Your task to perform on an android device: Search for flights from Helsinki to Tokyo Image 0: 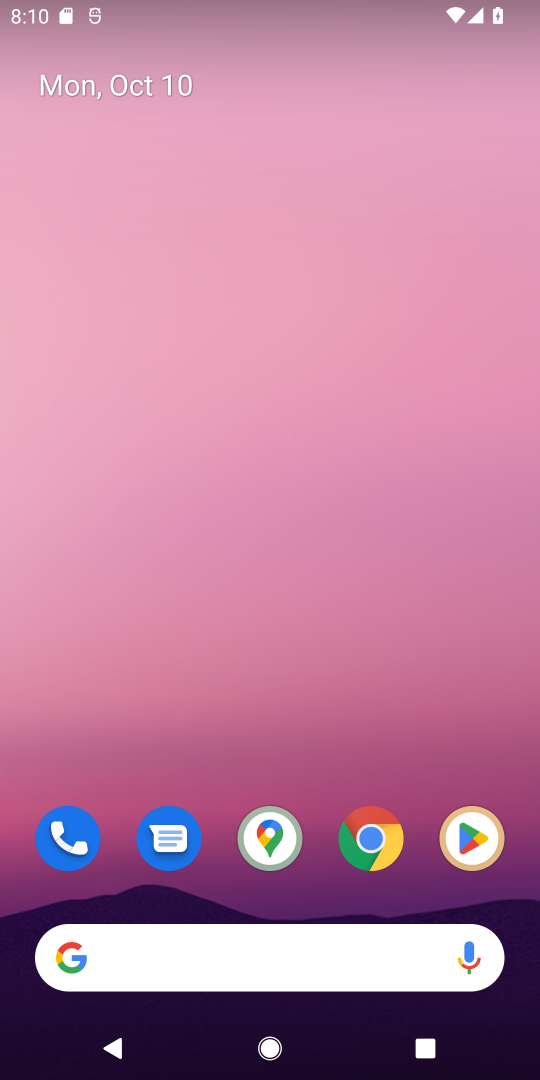
Step 0: click (375, 835)
Your task to perform on an android device: Search for flights from Helsinki to Tokyo Image 1: 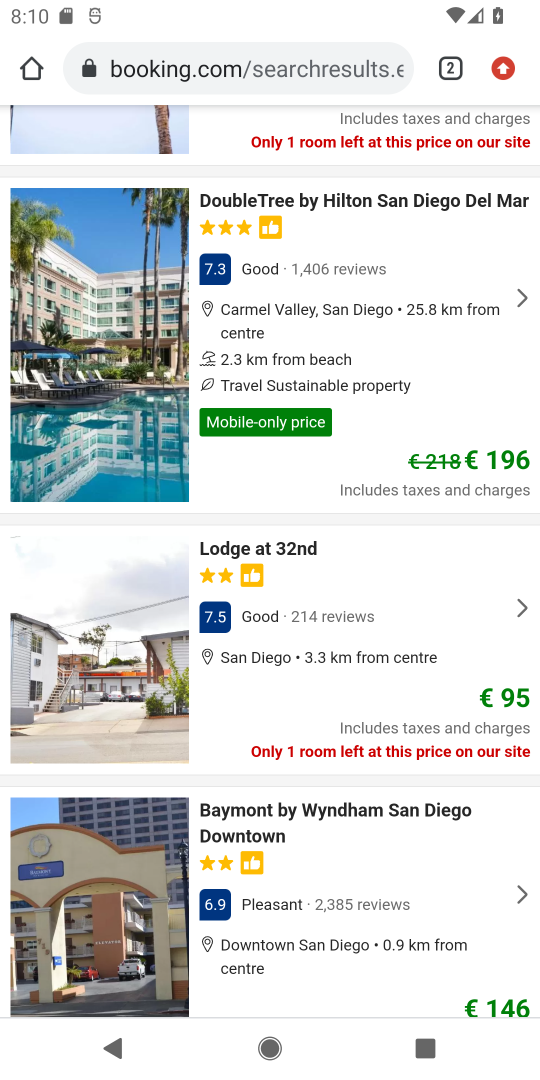
Step 1: click (241, 48)
Your task to perform on an android device: Search for flights from Helsinki to Tokyo Image 2: 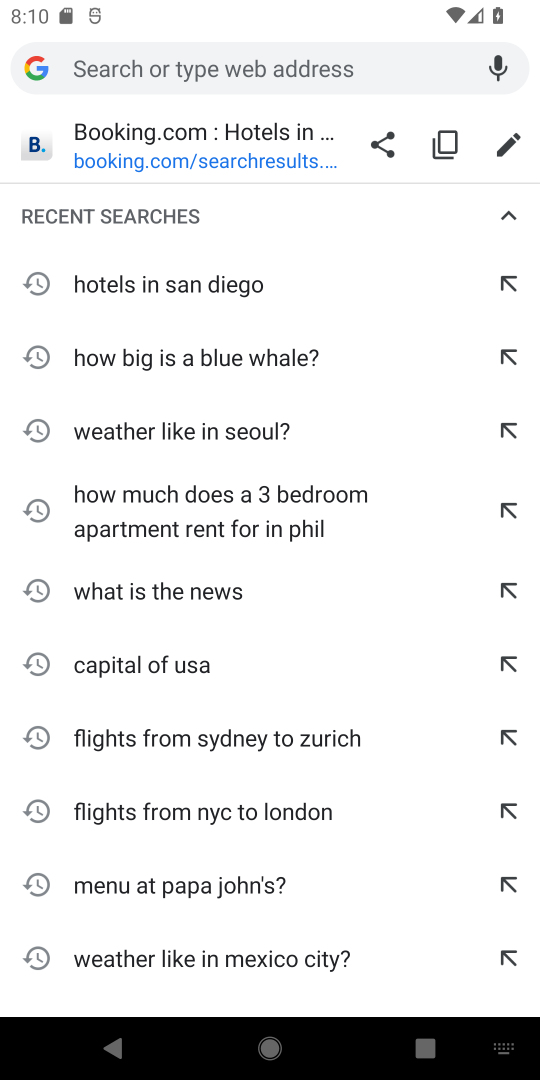
Step 2: type "flights from Helsinki to Tokyo"
Your task to perform on an android device: Search for flights from Helsinki to Tokyo Image 3: 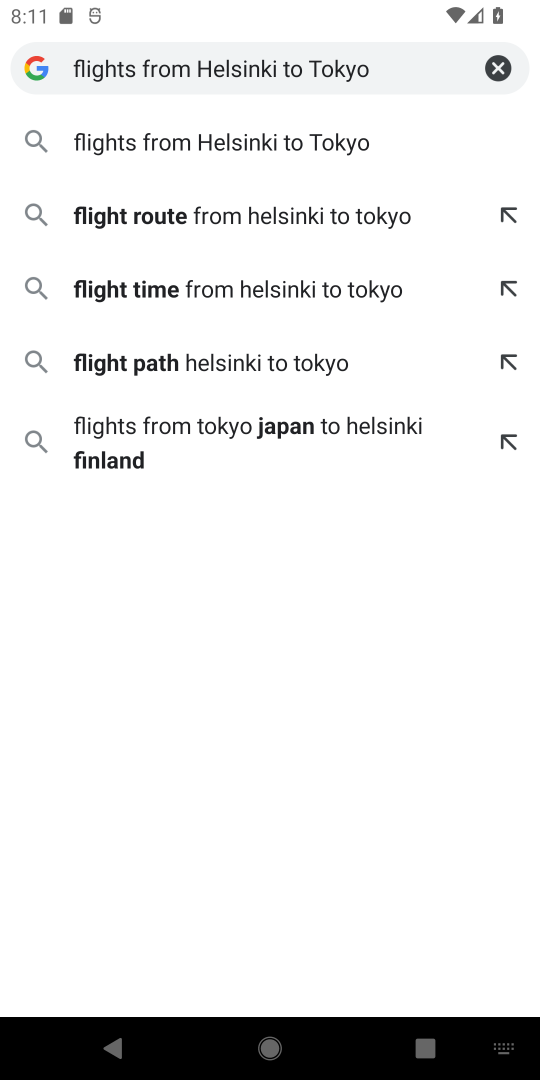
Step 3: click (143, 144)
Your task to perform on an android device: Search for flights from Helsinki to Tokyo Image 4: 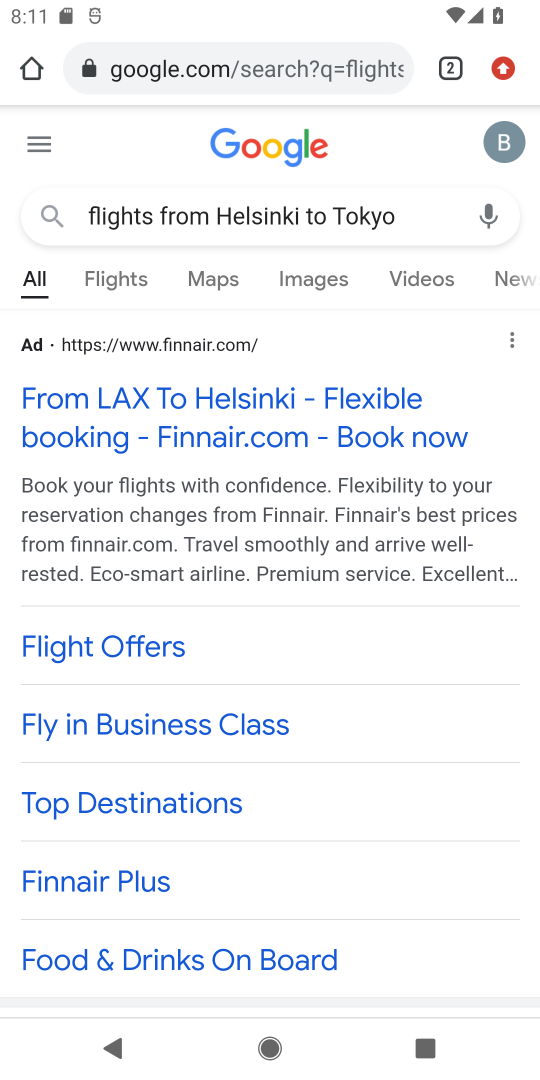
Step 4: drag from (324, 861) to (292, 199)
Your task to perform on an android device: Search for flights from Helsinki to Tokyo Image 5: 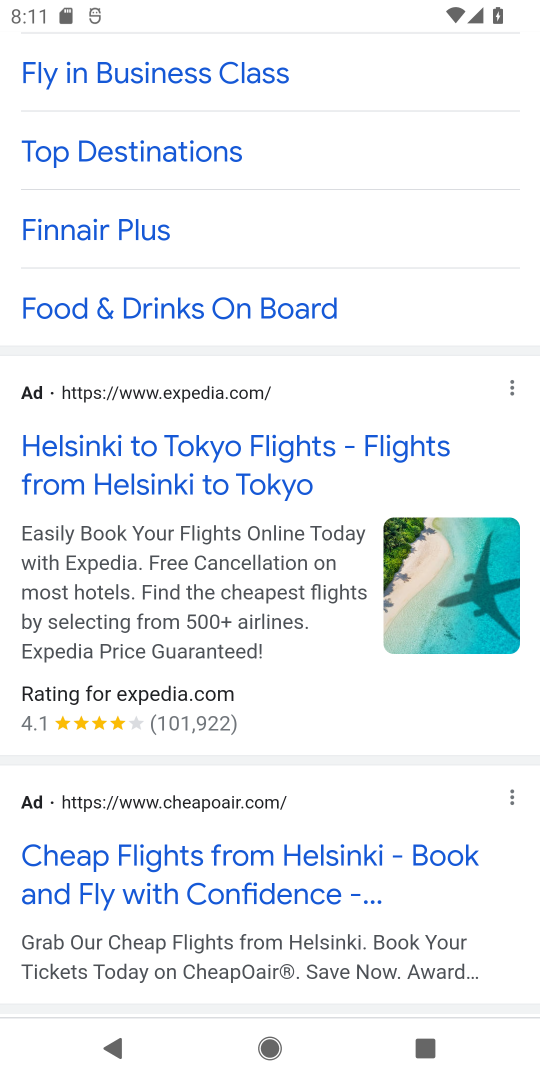
Step 5: click (126, 460)
Your task to perform on an android device: Search for flights from Helsinki to Tokyo Image 6: 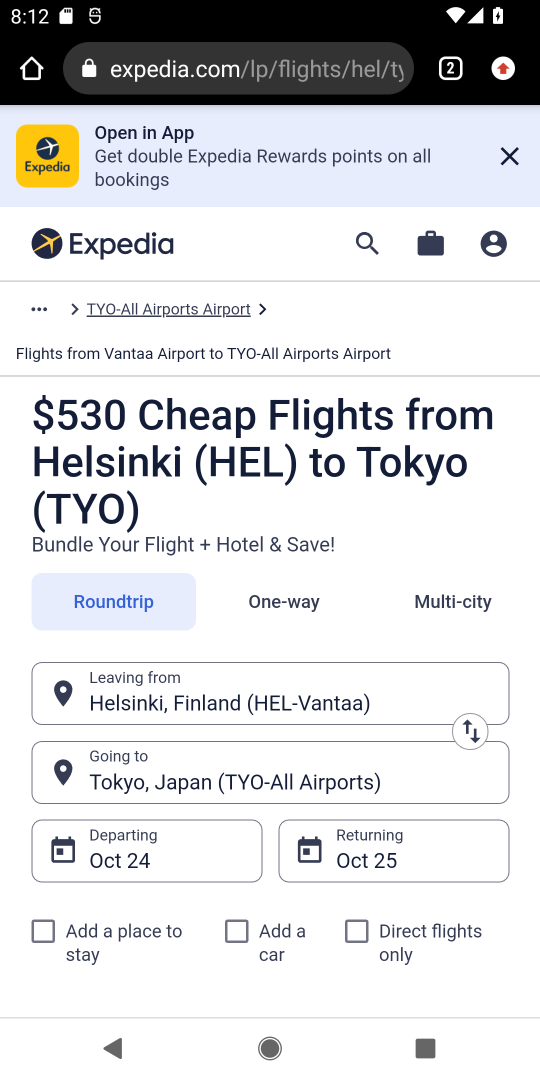
Step 6: drag from (262, 642) to (296, 284)
Your task to perform on an android device: Search for flights from Helsinki to Tokyo Image 7: 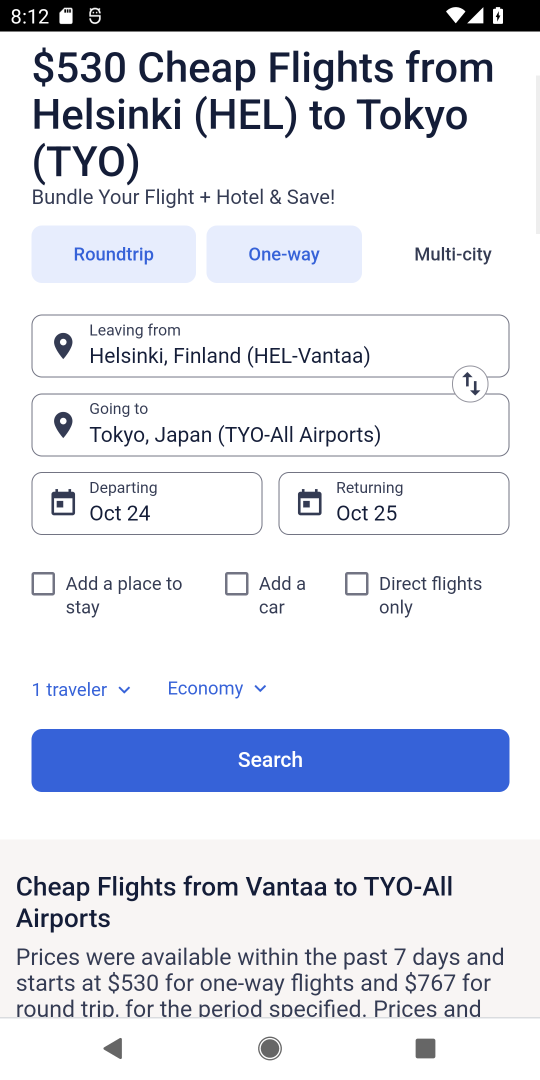
Step 7: click (269, 754)
Your task to perform on an android device: Search for flights from Helsinki to Tokyo Image 8: 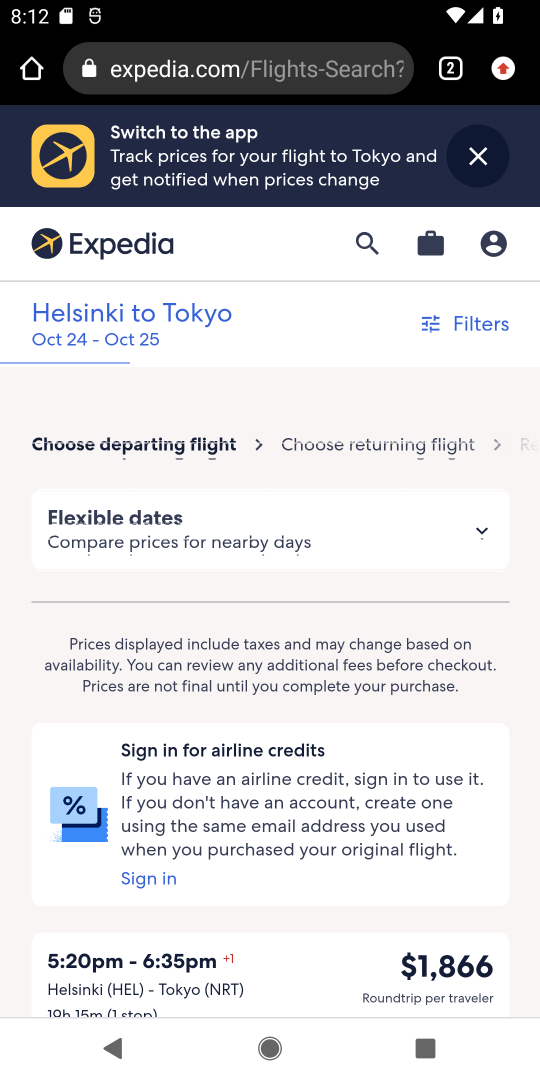
Step 8: task complete